Your task to perform on an android device: toggle translation in the chrome app Image 0: 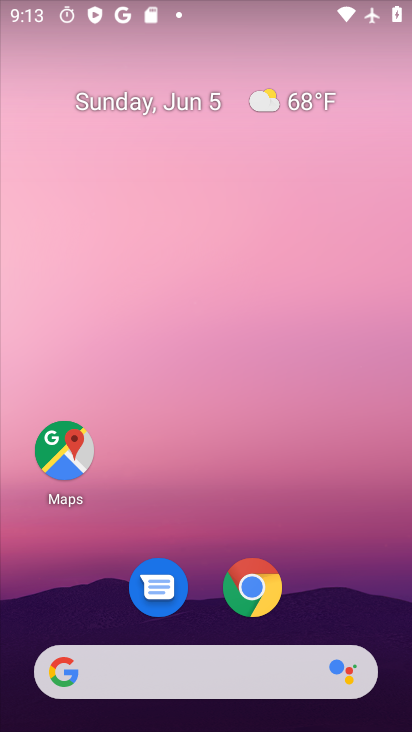
Step 0: click (240, 588)
Your task to perform on an android device: toggle translation in the chrome app Image 1: 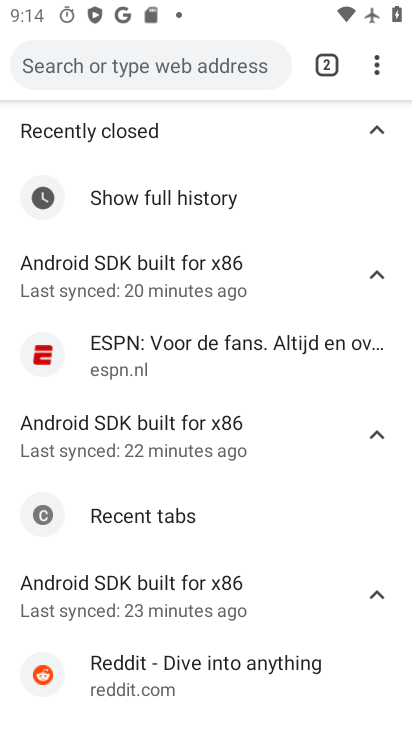
Step 1: click (373, 59)
Your task to perform on an android device: toggle translation in the chrome app Image 2: 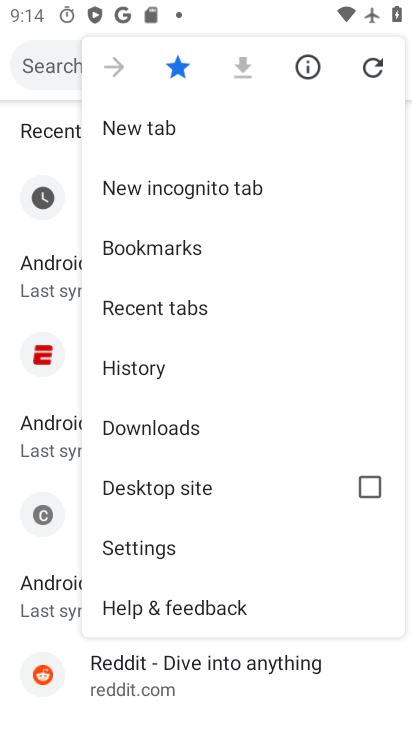
Step 2: click (169, 544)
Your task to perform on an android device: toggle translation in the chrome app Image 3: 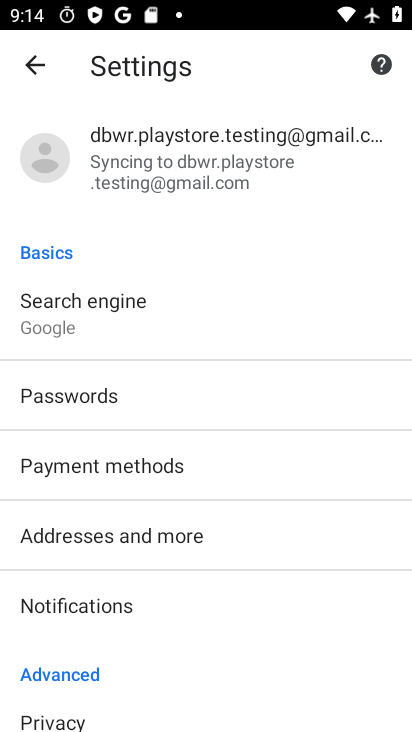
Step 3: drag from (115, 632) to (189, 222)
Your task to perform on an android device: toggle translation in the chrome app Image 4: 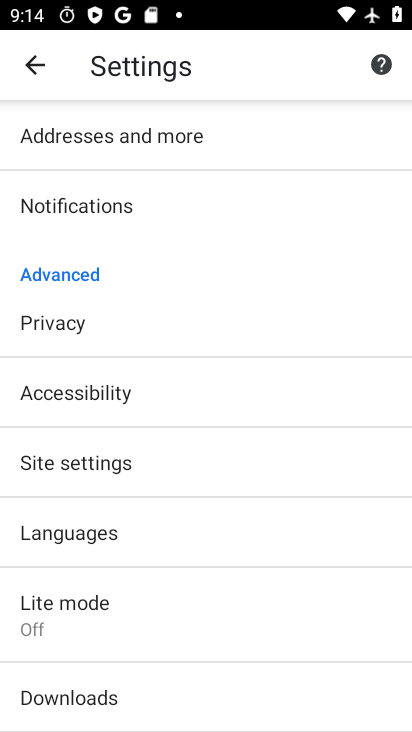
Step 4: drag from (79, 628) to (102, 342)
Your task to perform on an android device: toggle translation in the chrome app Image 5: 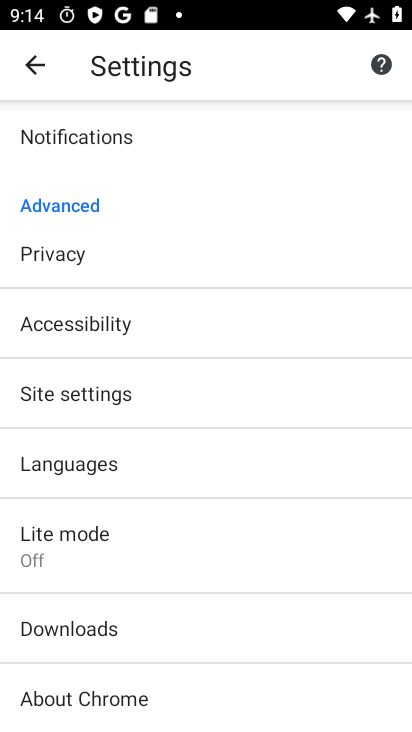
Step 5: click (79, 469)
Your task to perform on an android device: toggle translation in the chrome app Image 6: 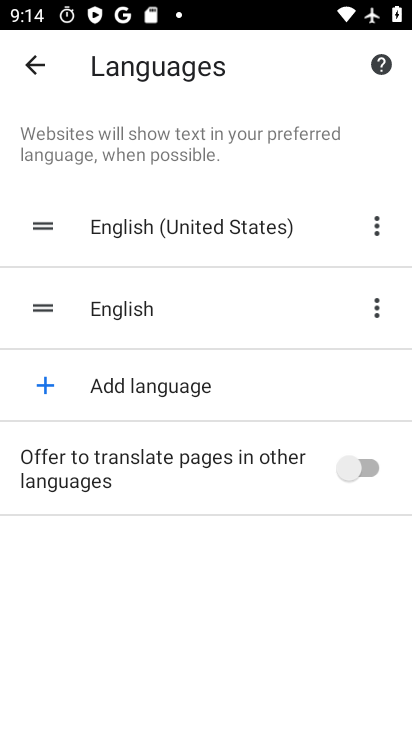
Step 6: click (376, 464)
Your task to perform on an android device: toggle translation in the chrome app Image 7: 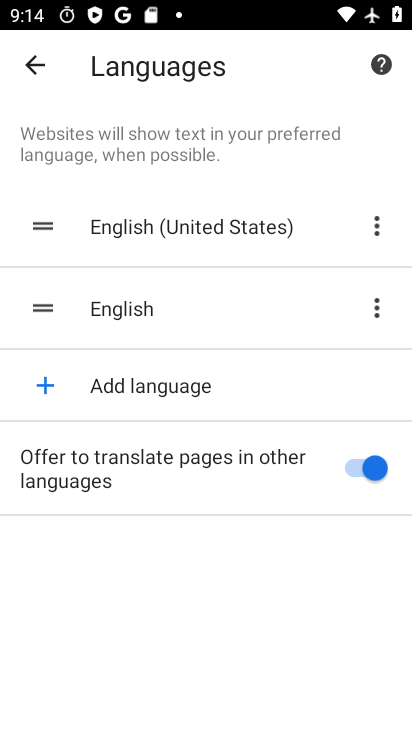
Step 7: task complete